Your task to perform on an android device: Search for Italian restaurants on Maps Image 0: 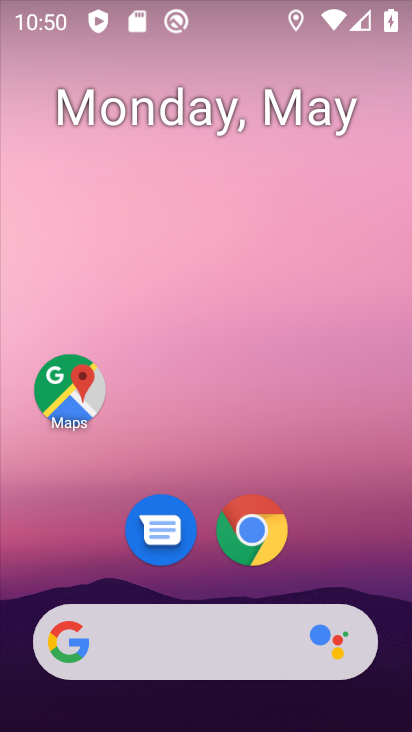
Step 0: click (68, 388)
Your task to perform on an android device: Search for Italian restaurants on Maps Image 1: 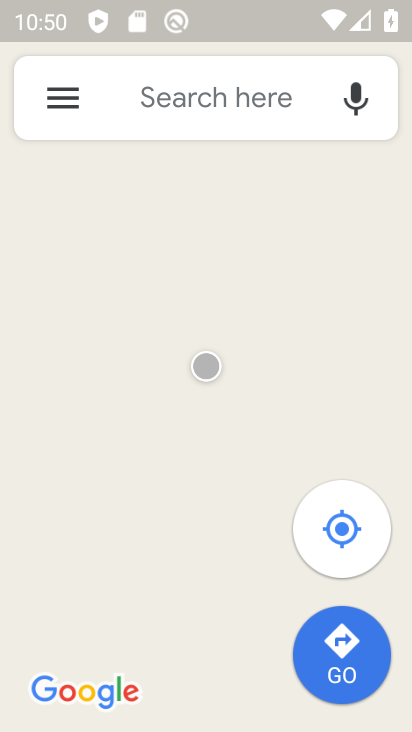
Step 1: click (195, 109)
Your task to perform on an android device: Search for Italian restaurants on Maps Image 2: 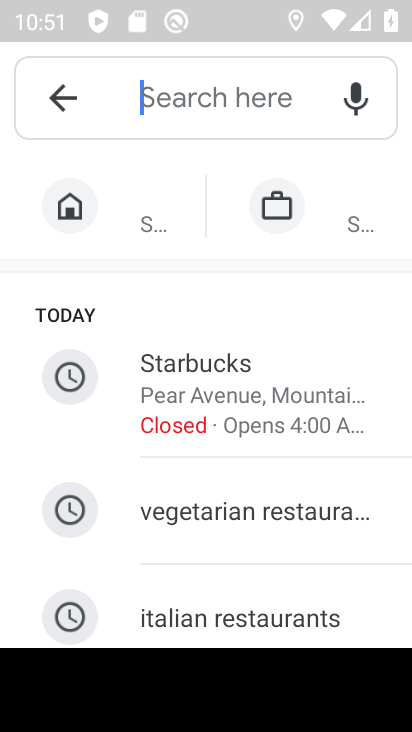
Step 2: type "Italian restaurants"
Your task to perform on an android device: Search for Italian restaurants on Maps Image 3: 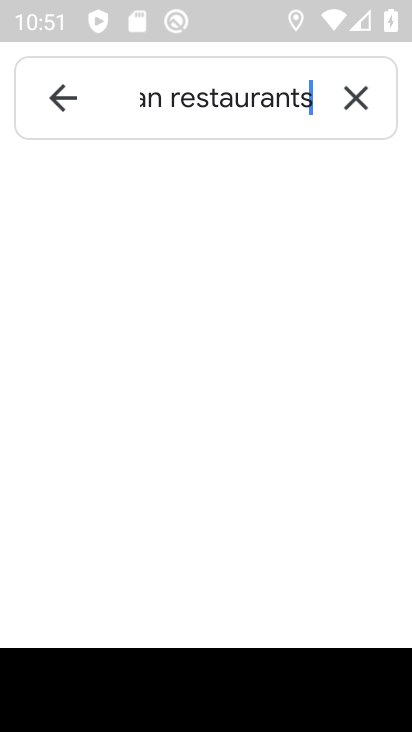
Step 3: type ""
Your task to perform on an android device: Search for Italian restaurants on Maps Image 4: 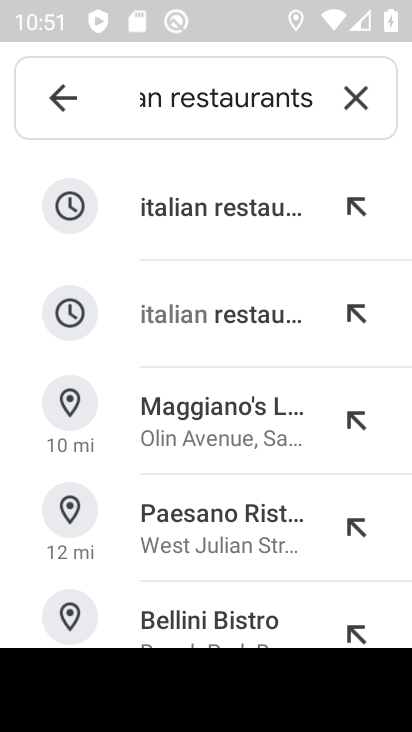
Step 4: click (259, 216)
Your task to perform on an android device: Search for Italian restaurants on Maps Image 5: 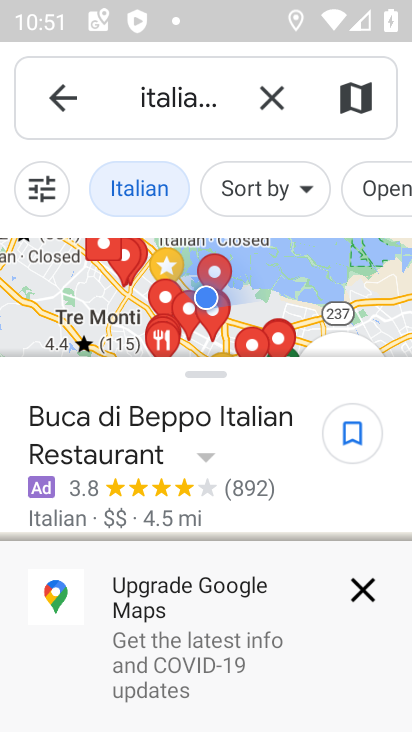
Step 5: task complete